Your task to perform on an android device: visit the assistant section in the google photos Image 0: 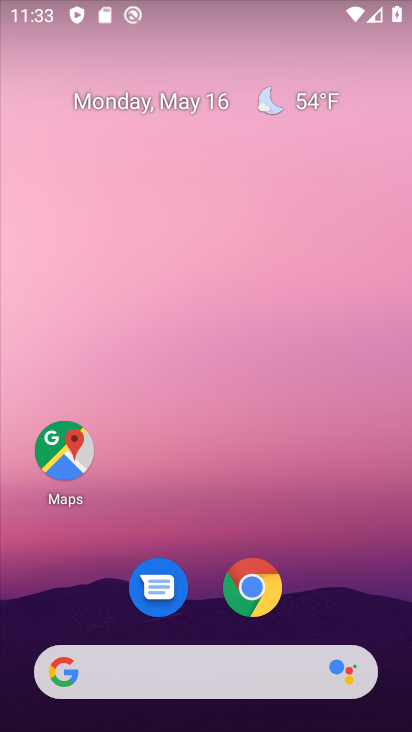
Step 0: drag from (236, 523) to (263, 203)
Your task to perform on an android device: visit the assistant section in the google photos Image 1: 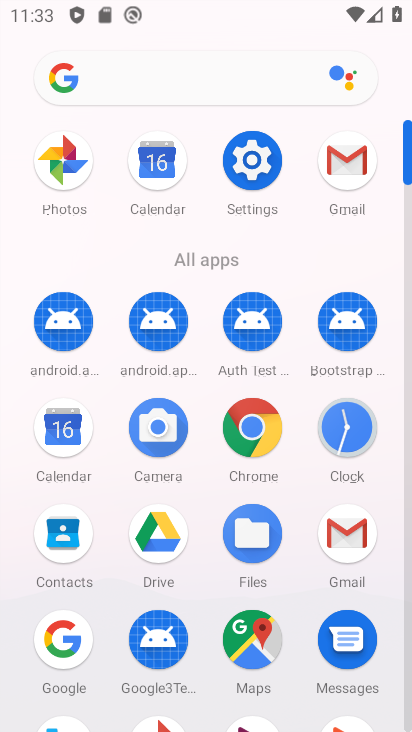
Step 1: drag from (217, 576) to (237, 280)
Your task to perform on an android device: visit the assistant section in the google photos Image 2: 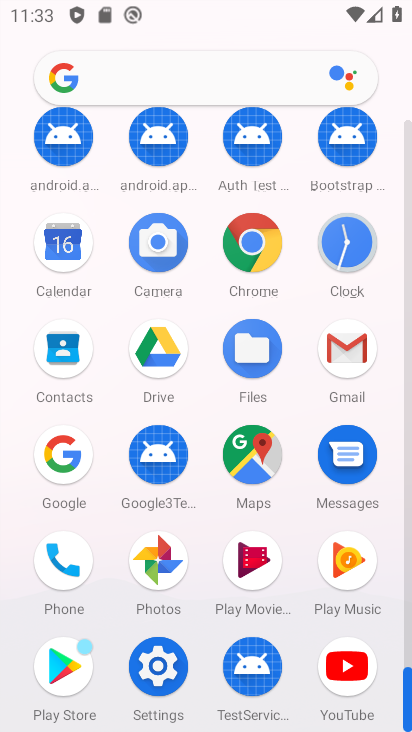
Step 2: click (158, 563)
Your task to perform on an android device: visit the assistant section in the google photos Image 3: 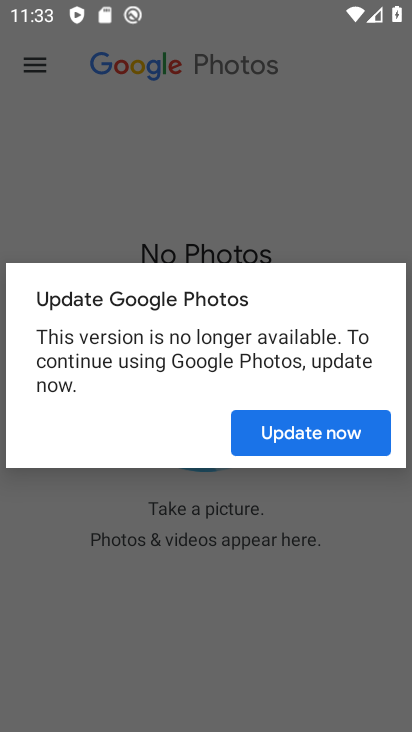
Step 3: click (263, 420)
Your task to perform on an android device: visit the assistant section in the google photos Image 4: 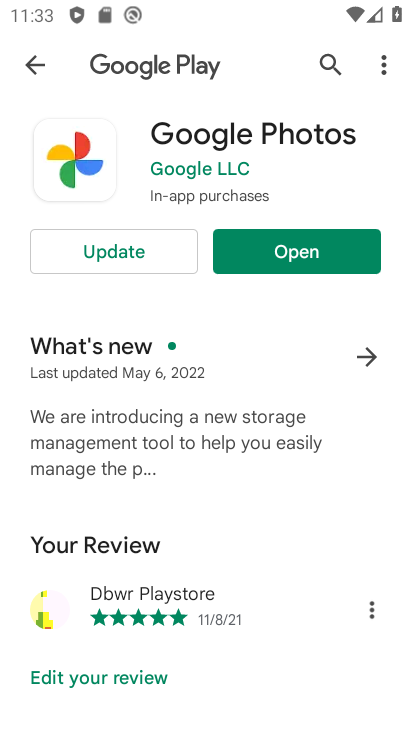
Step 4: click (252, 251)
Your task to perform on an android device: visit the assistant section in the google photos Image 5: 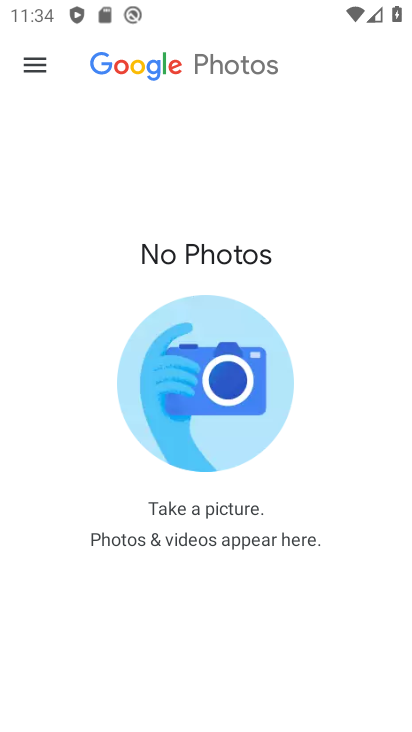
Step 5: drag from (202, 209) to (198, 574)
Your task to perform on an android device: visit the assistant section in the google photos Image 6: 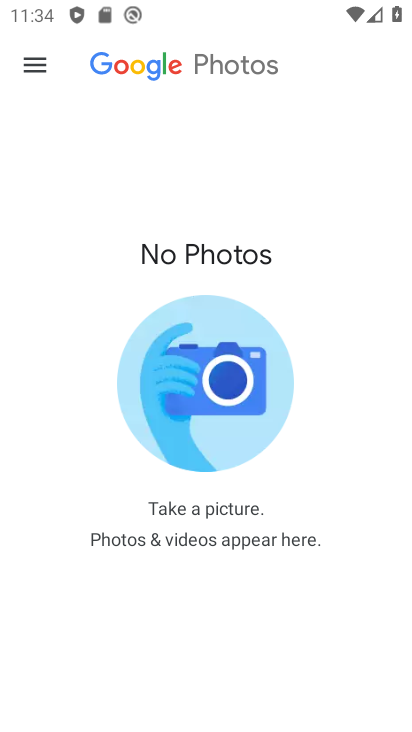
Step 6: click (30, 63)
Your task to perform on an android device: visit the assistant section in the google photos Image 7: 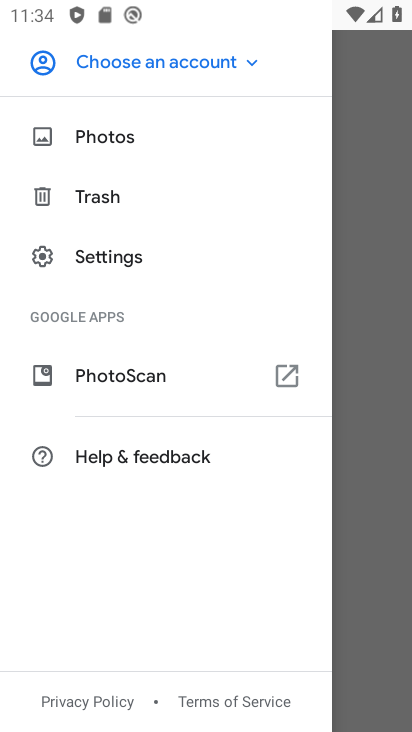
Step 7: click (67, 66)
Your task to perform on an android device: visit the assistant section in the google photos Image 8: 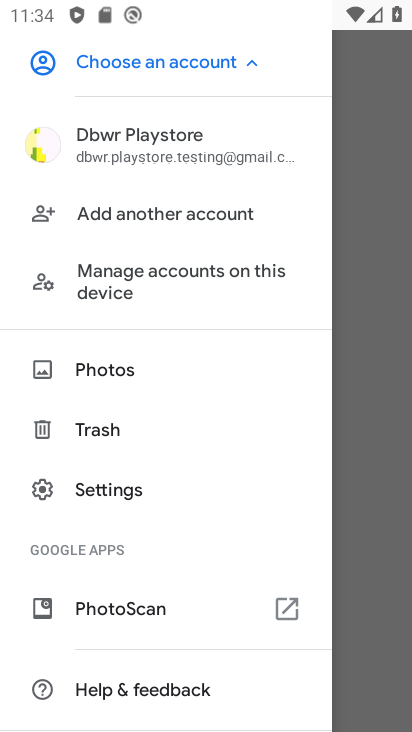
Step 8: click (119, 137)
Your task to perform on an android device: visit the assistant section in the google photos Image 9: 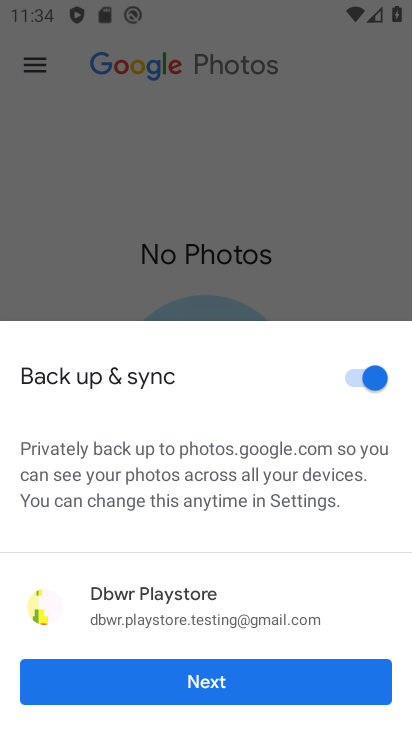
Step 9: click (191, 663)
Your task to perform on an android device: visit the assistant section in the google photos Image 10: 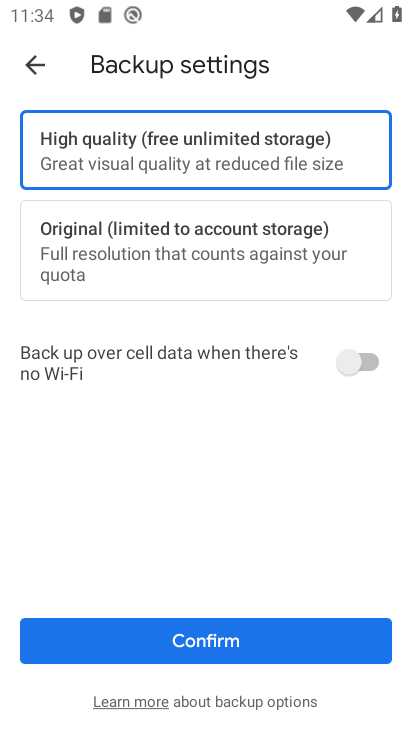
Step 10: click (195, 649)
Your task to perform on an android device: visit the assistant section in the google photos Image 11: 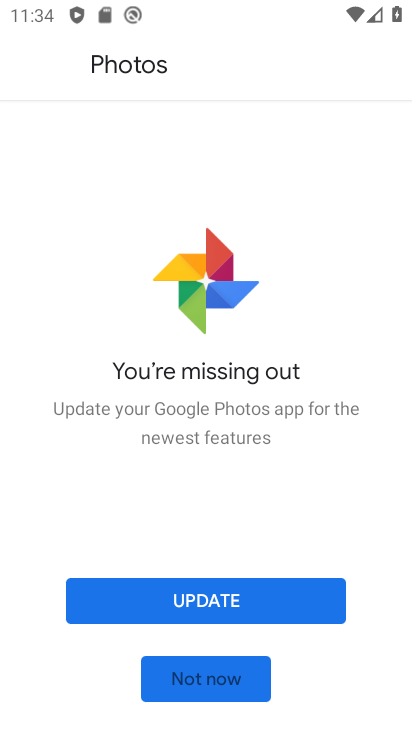
Step 11: click (202, 676)
Your task to perform on an android device: visit the assistant section in the google photos Image 12: 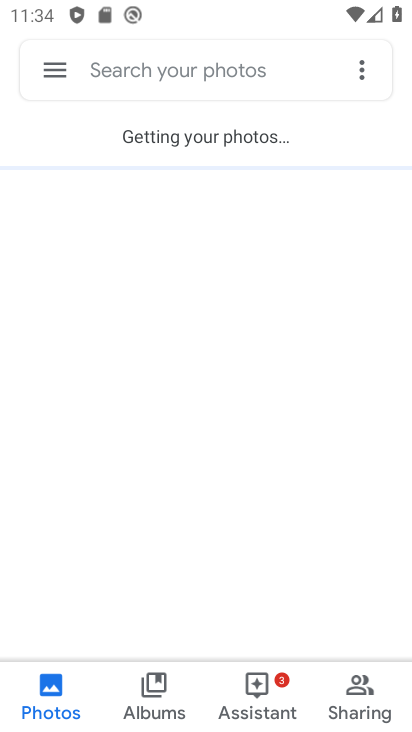
Step 12: click (256, 687)
Your task to perform on an android device: visit the assistant section in the google photos Image 13: 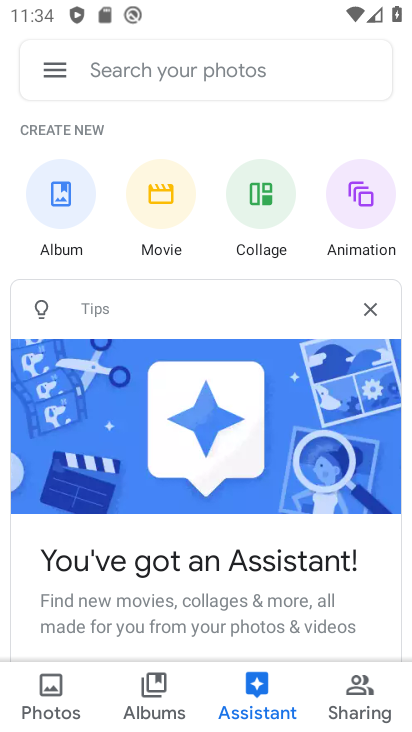
Step 13: task complete